Your task to perform on an android device: Open location settings Image 0: 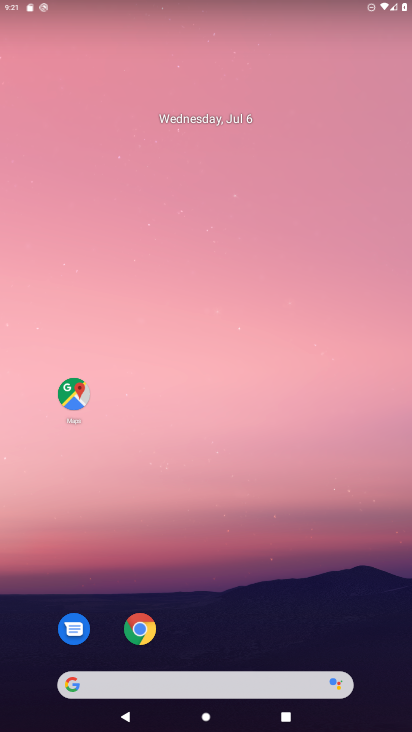
Step 0: drag from (298, 662) to (363, 1)
Your task to perform on an android device: Open location settings Image 1: 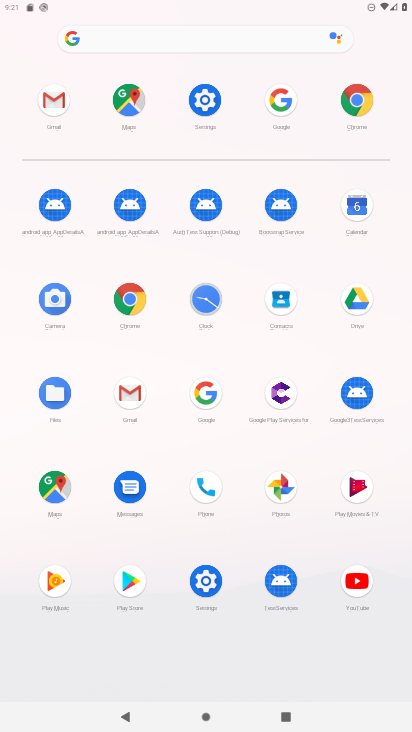
Step 1: click (213, 102)
Your task to perform on an android device: Open location settings Image 2: 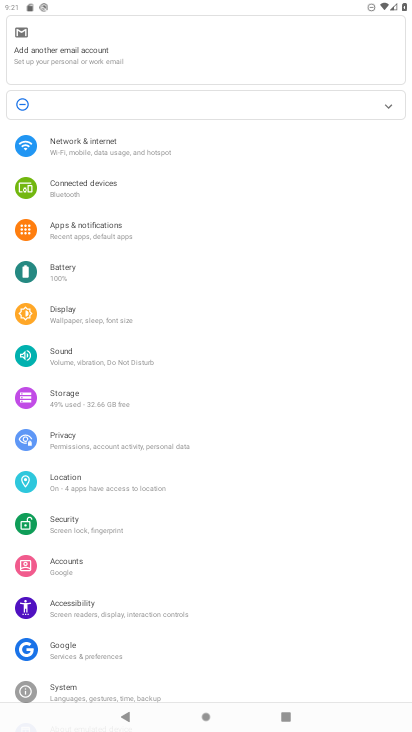
Step 2: click (90, 476)
Your task to perform on an android device: Open location settings Image 3: 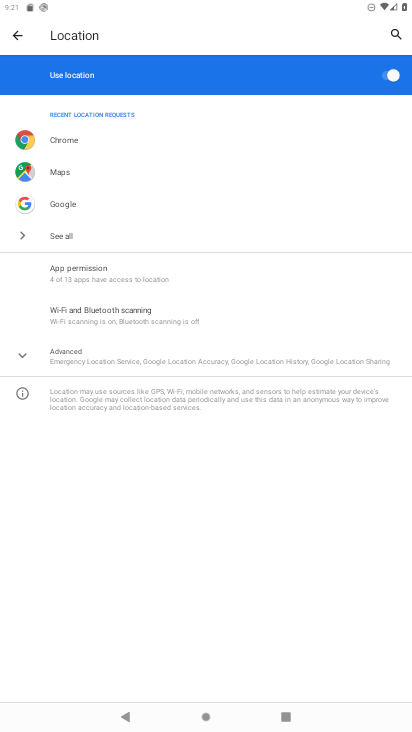
Step 3: task complete